Your task to perform on an android device: turn on showing notifications on the lock screen Image 0: 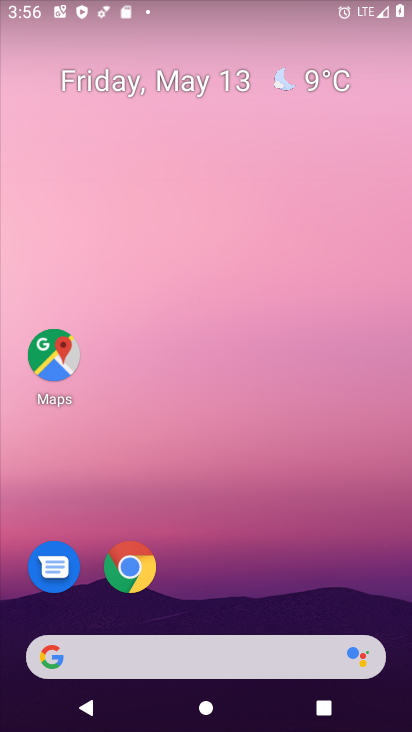
Step 0: drag from (236, 609) to (277, 7)
Your task to perform on an android device: turn on showing notifications on the lock screen Image 1: 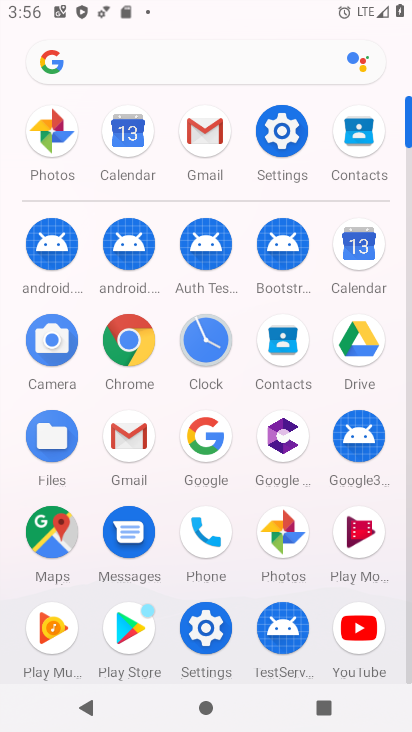
Step 1: click (283, 138)
Your task to perform on an android device: turn on showing notifications on the lock screen Image 2: 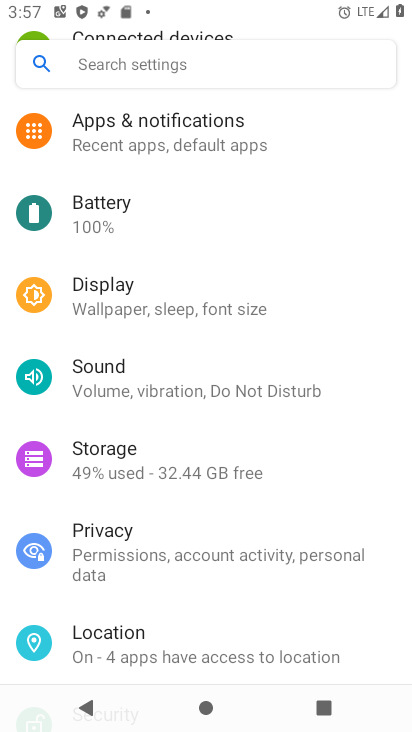
Step 2: drag from (306, 257) to (305, 376)
Your task to perform on an android device: turn on showing notifications on the lock screen Image 3: 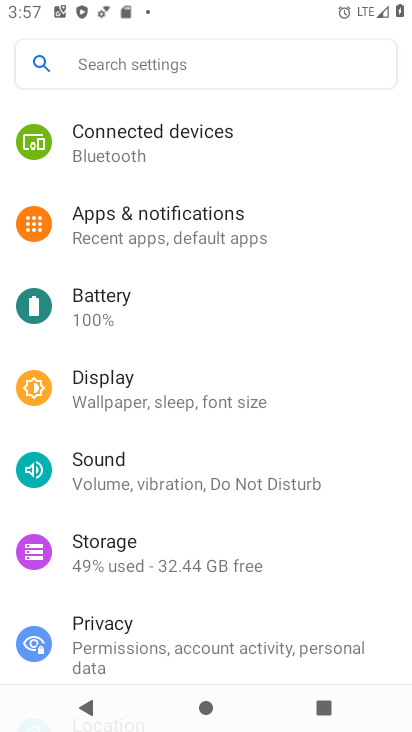
Step 3: click (162, 238)
Your task to perform on an android device: turn on showing notifications on the lock screen Image 4: 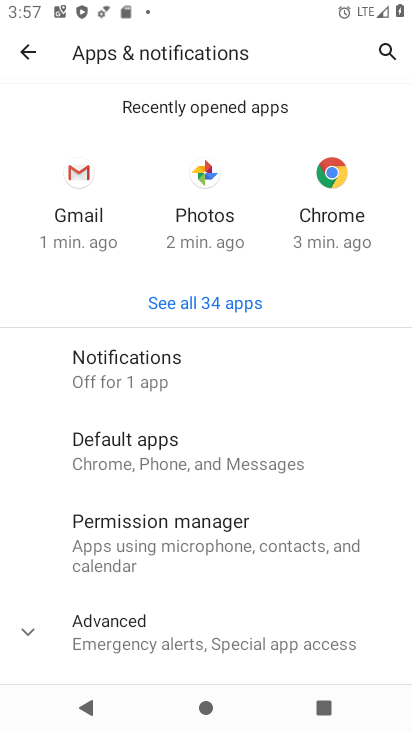
Step 4: click (129, 374)
Your task to perform on an android device: turn on showing notifications on the lock screen Image 5: 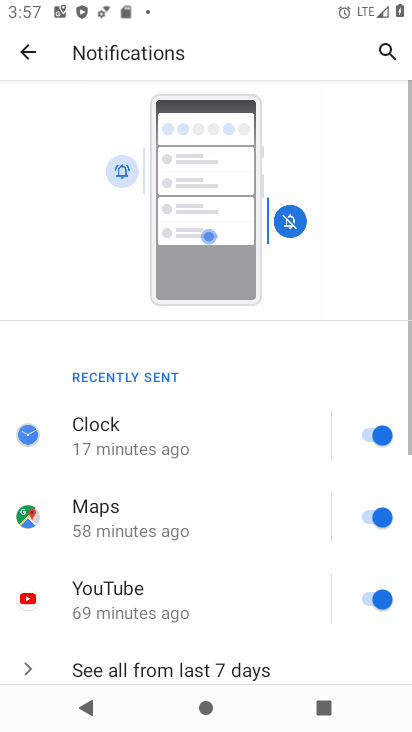
Step 5: drag from (139, 599) to (154, 101)
Your task to perform on an android device: turn on showing notifications on the lock screen Image 6: 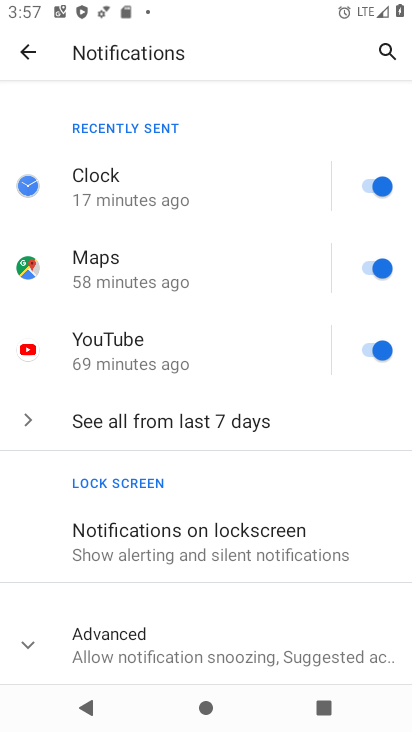
Step 6: click (127, 541)
Your task to perform on an android device: turn on showing notifications on the lock screen Image 7: 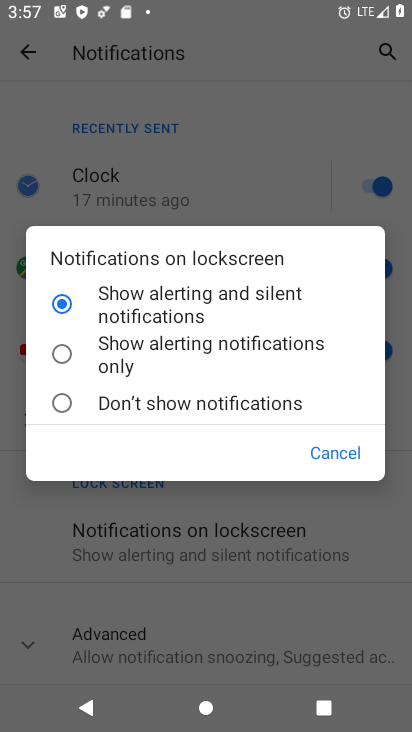
Step 7: task complete